Your task to perform on an android device: check google app version Image 0: 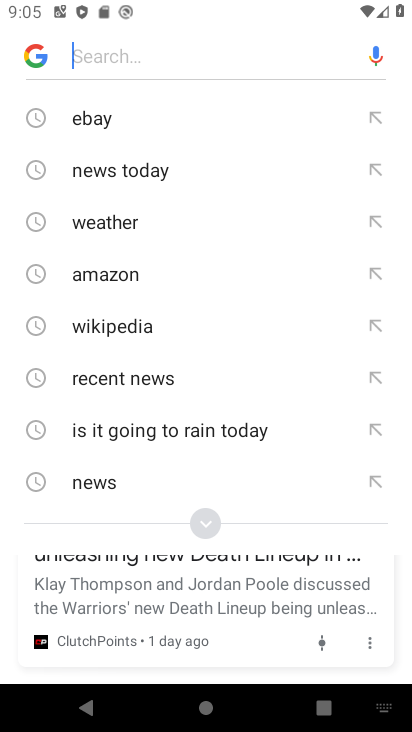
Step 0: task impossible